Your task to perform on an android device: Show me popular videos on Youtube Image 0: 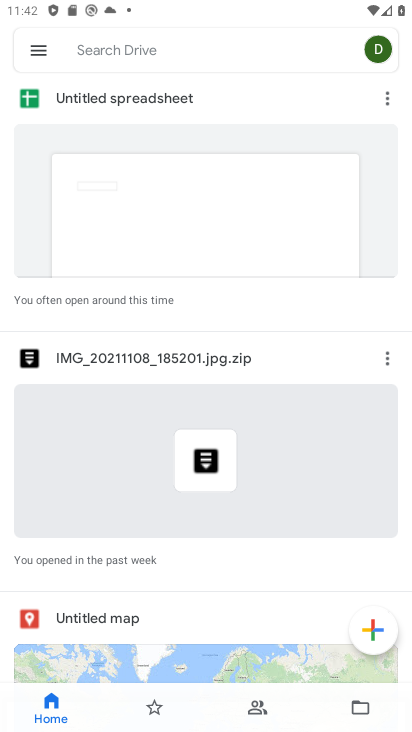
Step 0: press home button
Your task to perform on an android device: Show me popular videos on Youtube Image 1: 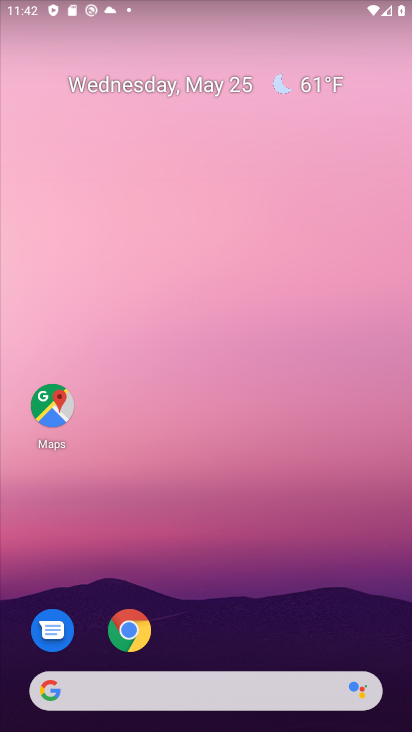
Step 1: drag from (239, 657) to (337, 194)
Your task to perform on an android device: Show me popular videos on Youtube Image 2: 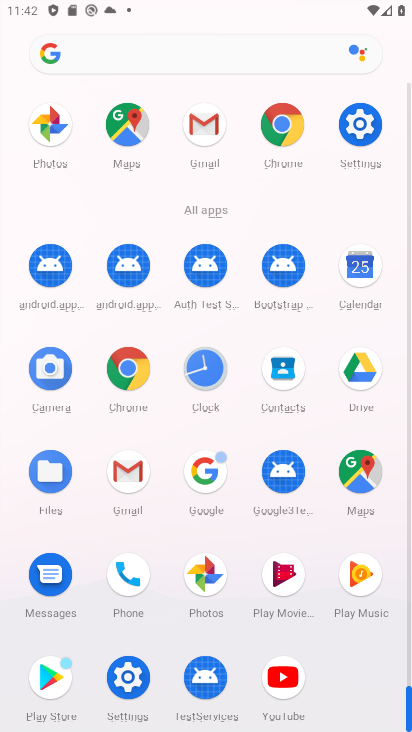
Step 2: click (283, 689)
Your task to perform on an android device: Show me popular videos on Youtube Image 3: 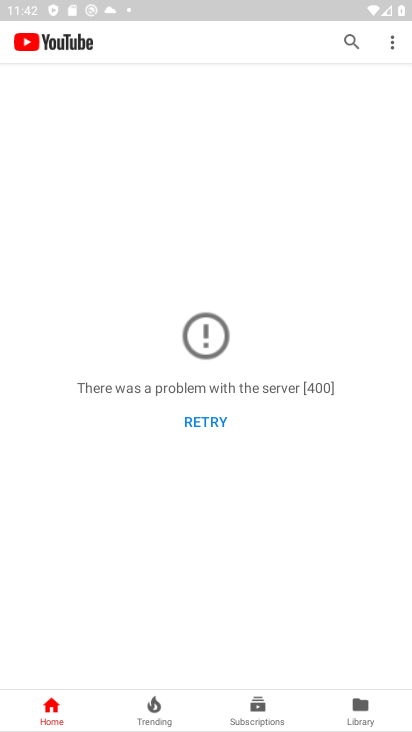
Step 3: click (366, 705)
Your task to perform on an android device: Show me popular videos on Youtube Image 4: 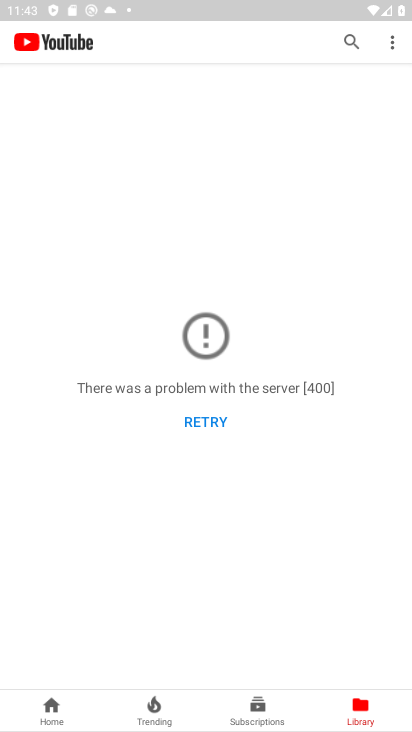
Step 4: click (366, 705)
Your task to perform on an android device: Show me popular videos on Youtube Image 5: 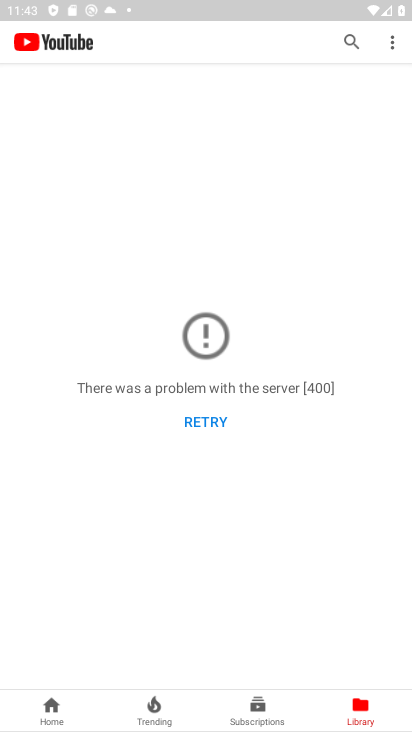
Step 5: click (366, 705)
Your task to perform on an android device: Show me popular videos on Youtube Image 6: 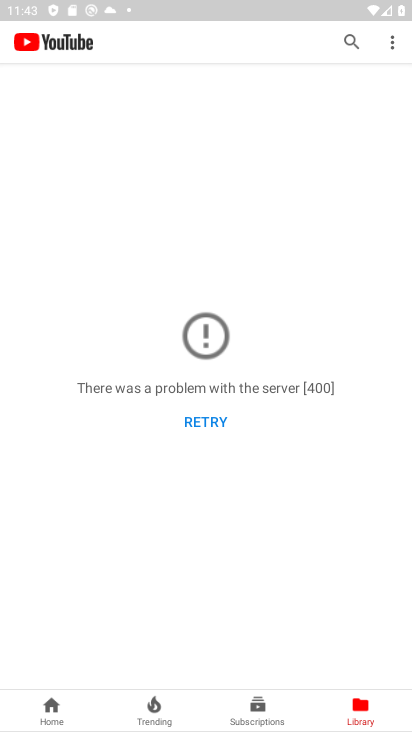
Step 6: click (366, 705)
Your task to perform on an android device: Show me popular videos on Youtube Image 7: 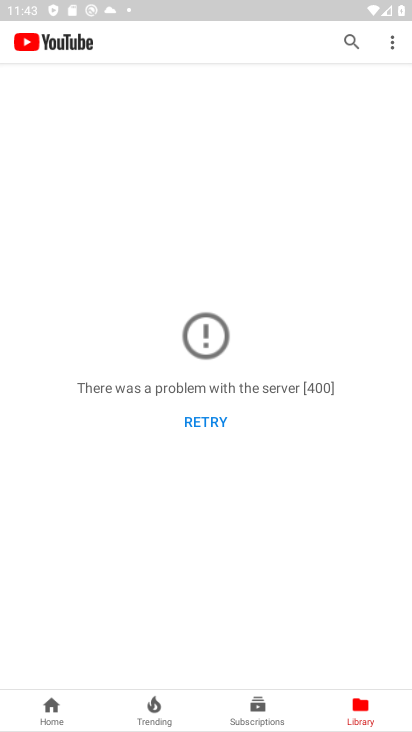
Step 7: task complete